Your task to perform on an android device: turn on priority inbox in the gmail app Image 0: 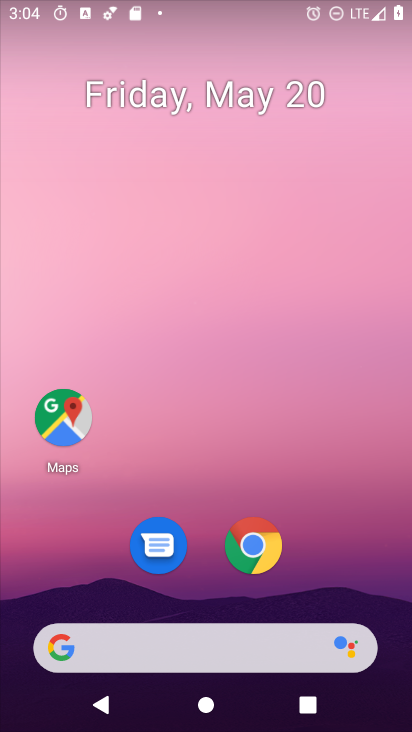
Step 0: drag from (329, 646) to (297, 21)
Your task to perform on an android device: turn on priority inbox in the gmail app Image 1: 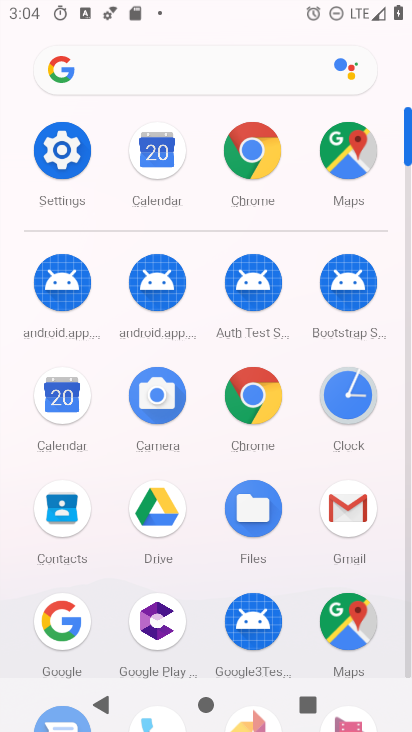
Step 1: click (343, 509)
Your task to perform on an android device: turn on priority inbox in the gmail app Image 2: 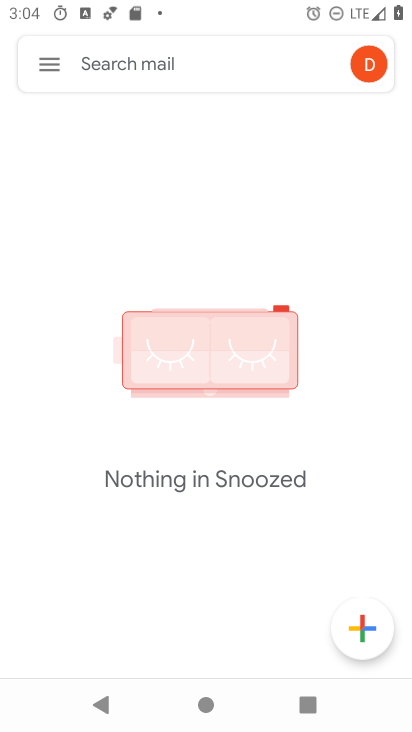
Step 2: click (50, 69)
Your task to perform on an android device: turn on priority inbox in the gmail app Image 3: 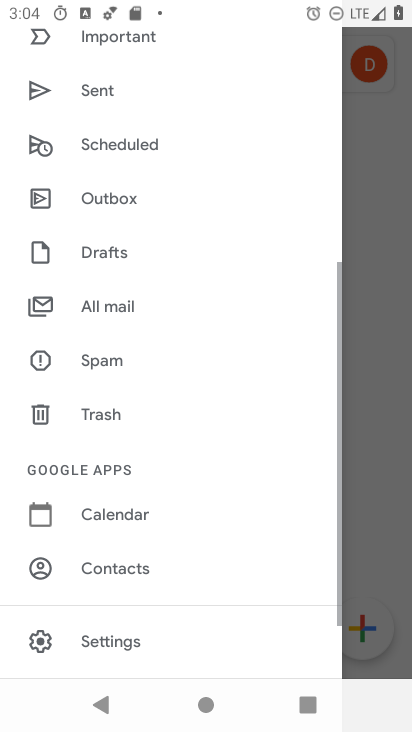
Step 3: drag from (190, 185) to (268, 15)
Your task to perform on an android device: turn on priority inbox in the gmail app Image 4: 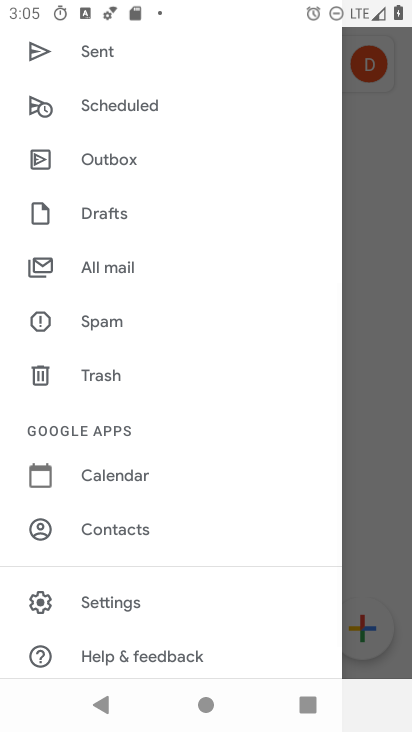
Step 4: click (138, 593)
Your task to perform on an android device: turn on priority inbox in the gmail app Image 5: 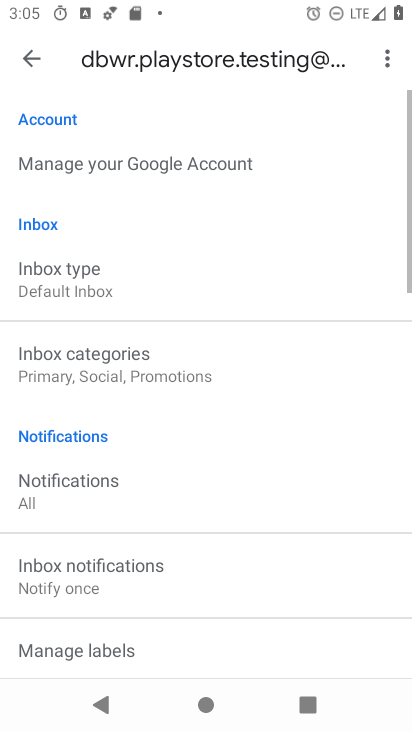
Step 5: click (187, 291)
Your task to perform on an android device: turn on priority inbox in the gmail app Image 6: 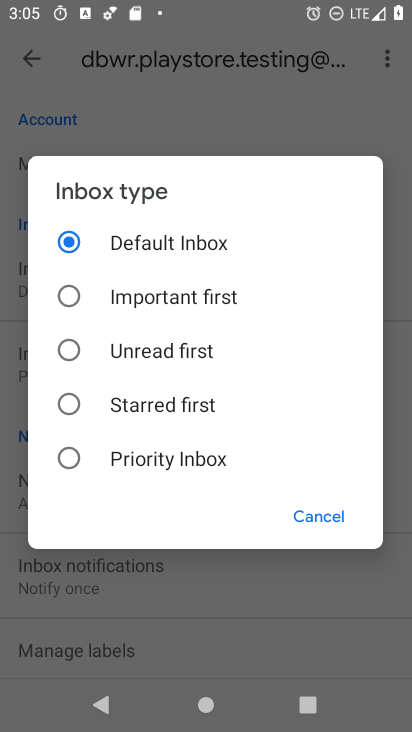
Step 6: click (72, 457)
Your task to perform on an android device: turn on priority inbox in the gmail app Image 7: 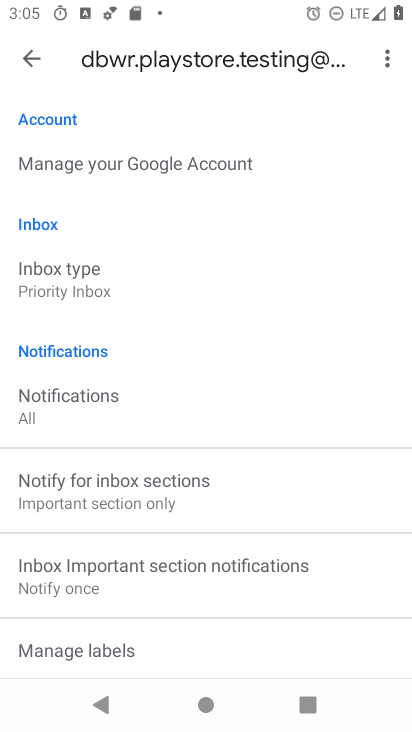
Step 7: task complete